Your task to perform on an android device: install app "PUBG MOBILE" Image 0: 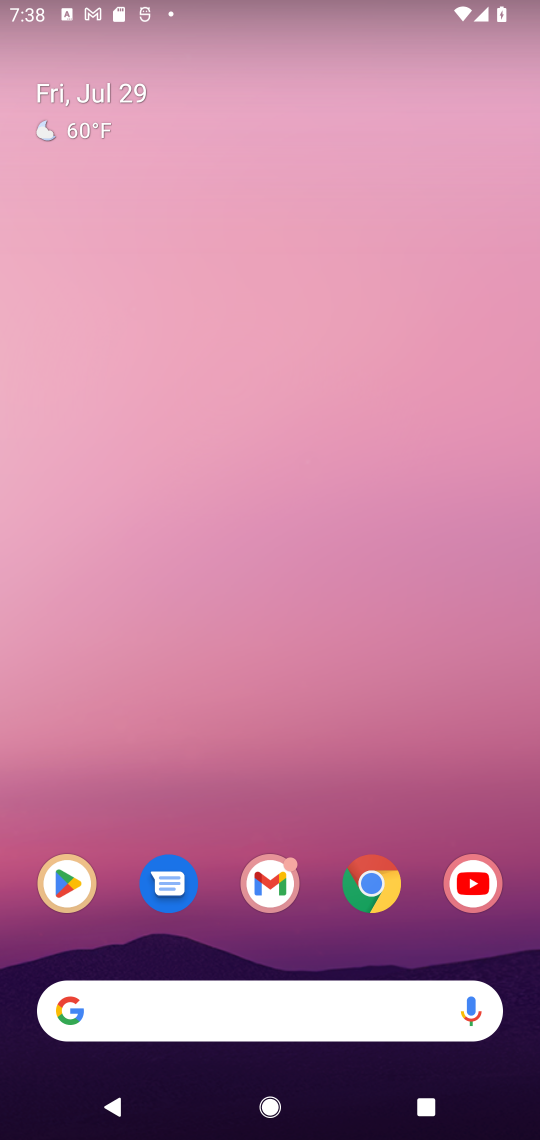
Step 0: click (70, 896)
Your task to perform on an android device: install app "PUBG MOBILE" Image 1: 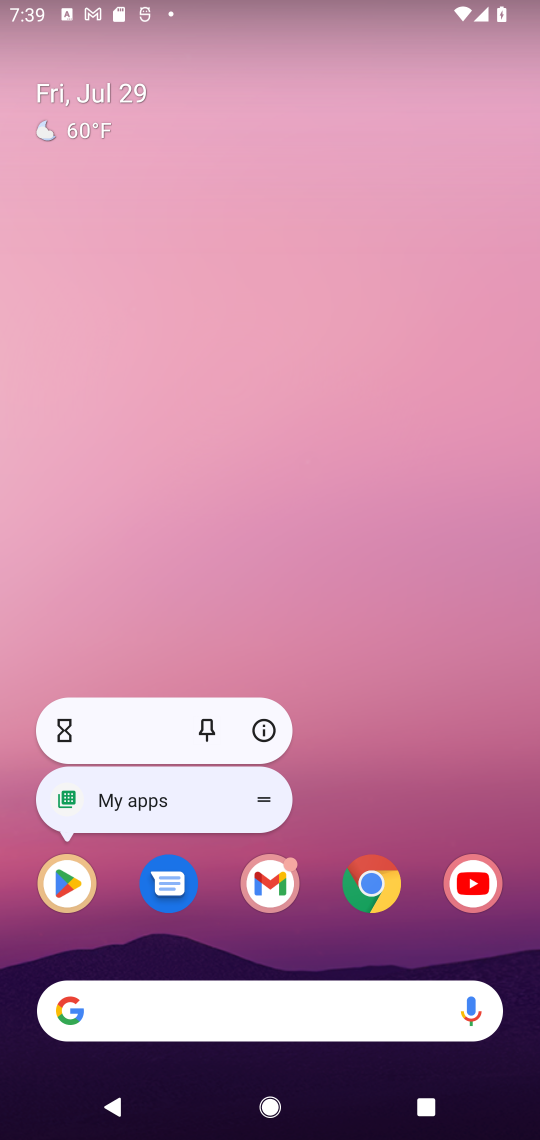
Step 1: click (53, 878)
Your task to perform on an android device: install app "PUBG MOBILE" Image 2: 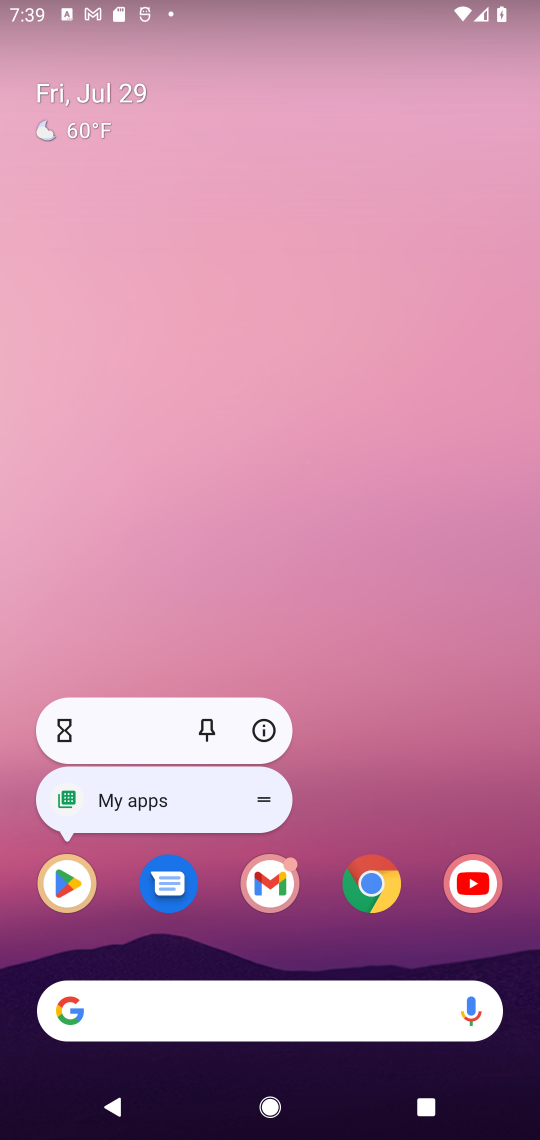
Step 2: click (66, 873)
Your task to perform on an android device: install app "PUBG MOBILE" Image 3: 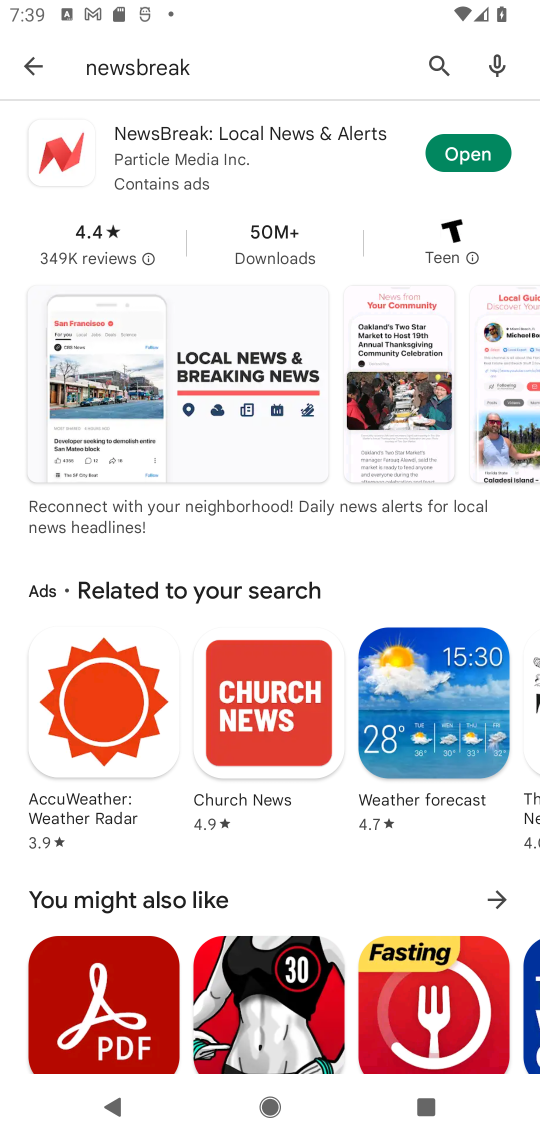
Step 3: click (431, 64)
Your task to perform on an android device: install app "PUBG MOBILE" Image 4: 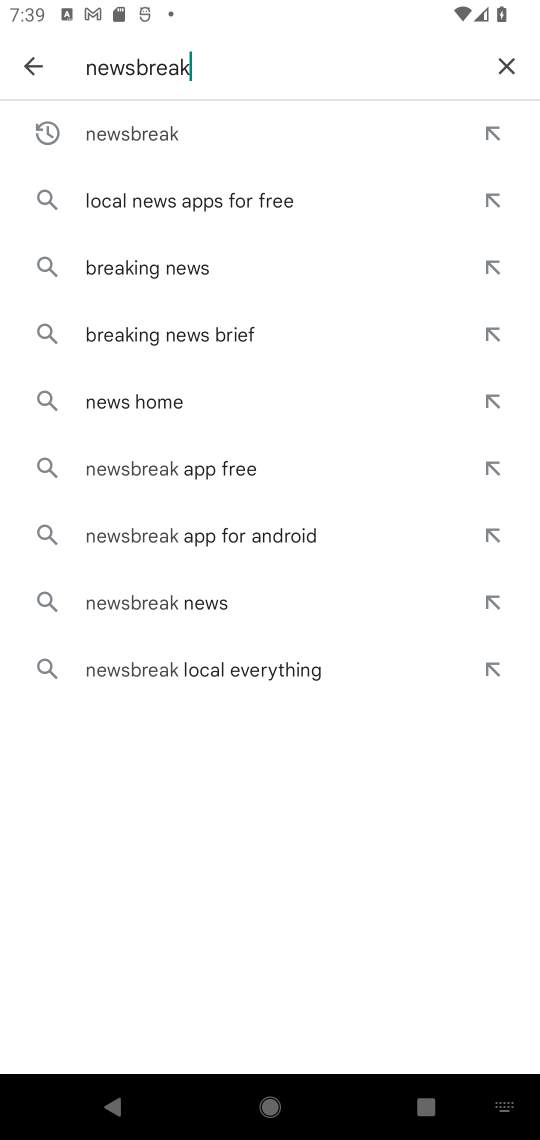
Step 4: click (500, 65)
Your task to perform on an android device: install app "PUBG MOBILE" Image 5: 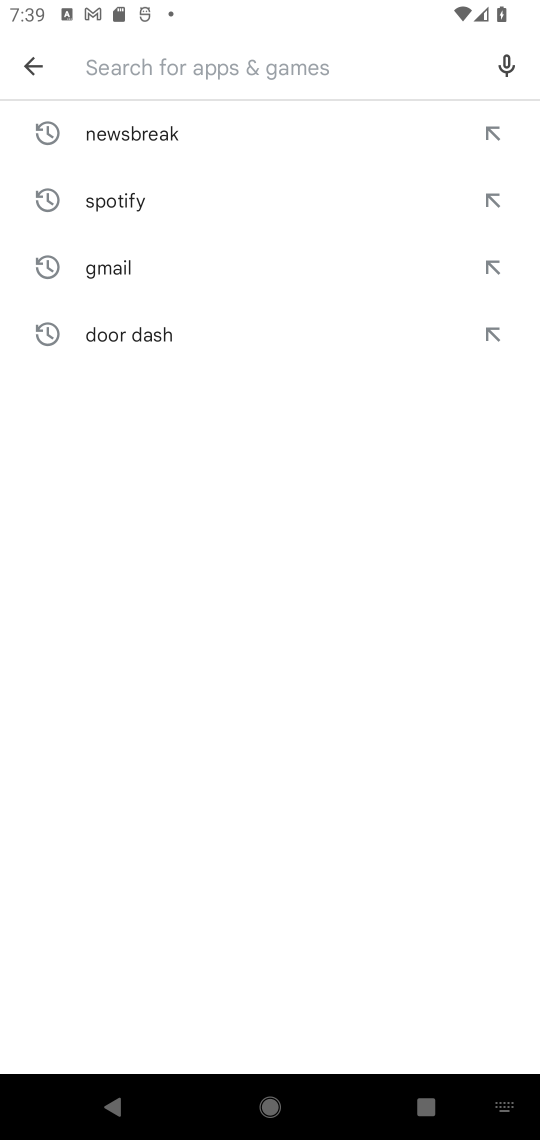
Step 5: click (198, 61)
Your task to perform on an android device: install app "PUBG MOBILE" Image 6: 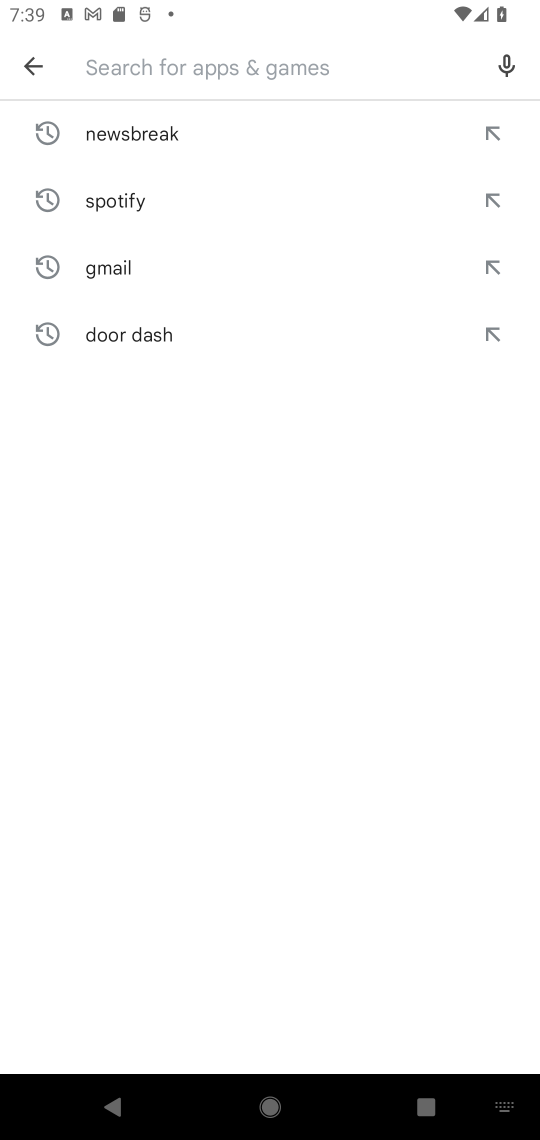
Step 6: type "pubg"
Your task to perform on an android device: install app "PUBG MOBILE" Image 7: 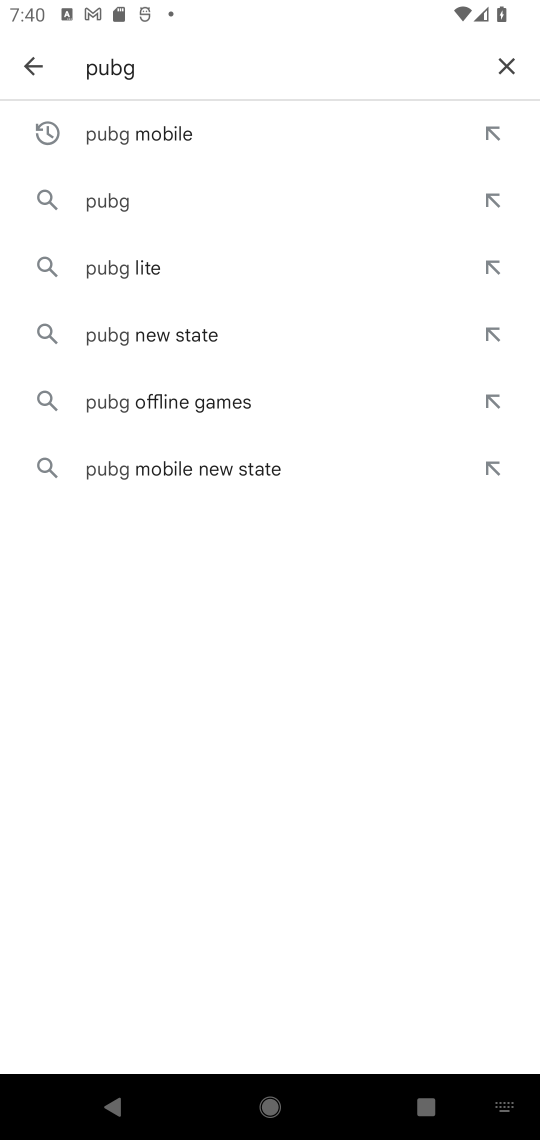
Step 7: click (149, 129)
Your task to perform on an android device: install app "PUBG MOBILE" Image 8: 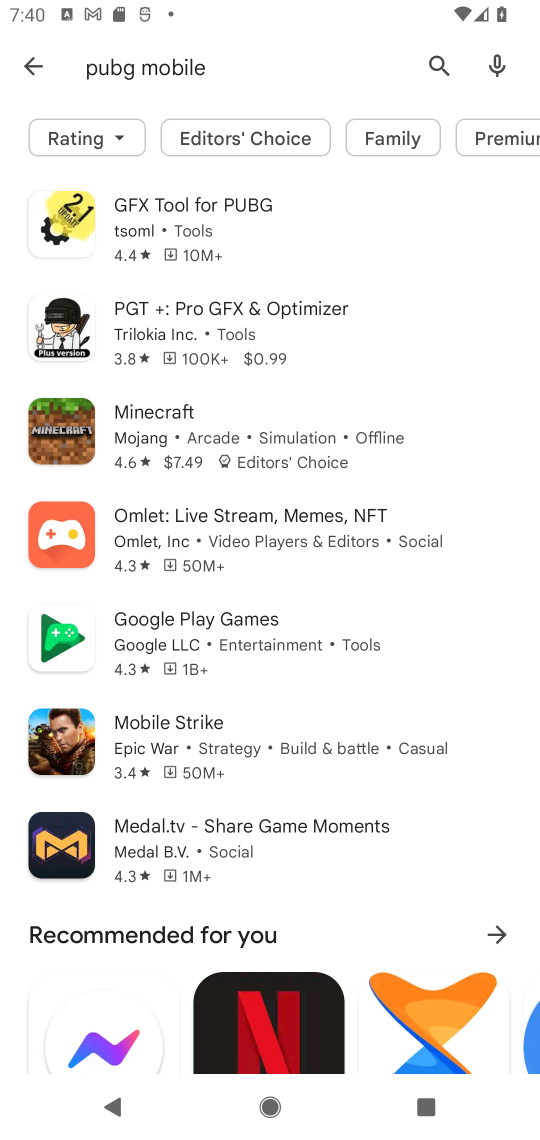
Step 8: task complete